Your task to perform on an android device: check android version Image 0: 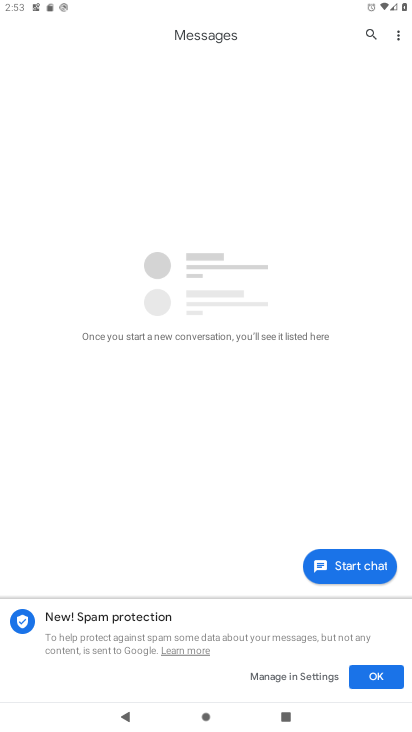
Step 0: press home button
Your task to perform on an android device: check android version Image 1: 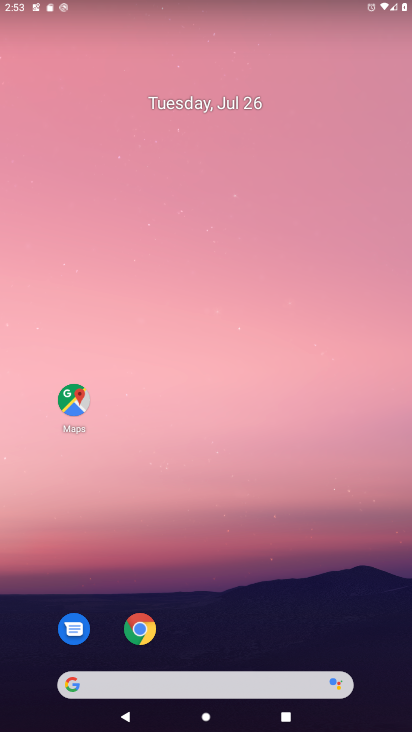
Step 1: drag from (203, 653) to (208, 252)
Your task to perform on an android device: check android version Image 2: 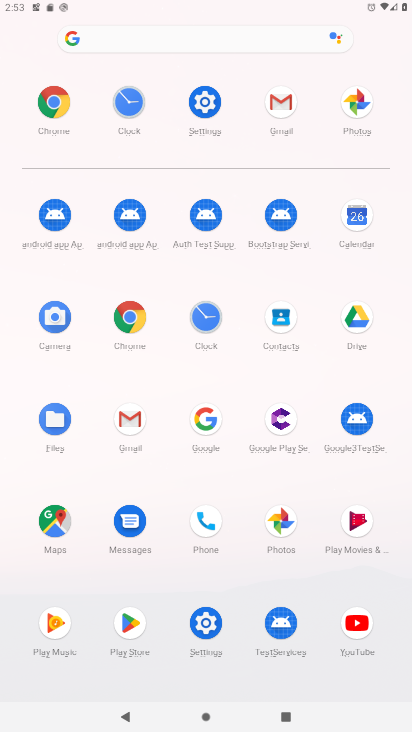
Step 2: click (233, 109)
Your task to perform on an android device: check android version Image 3: 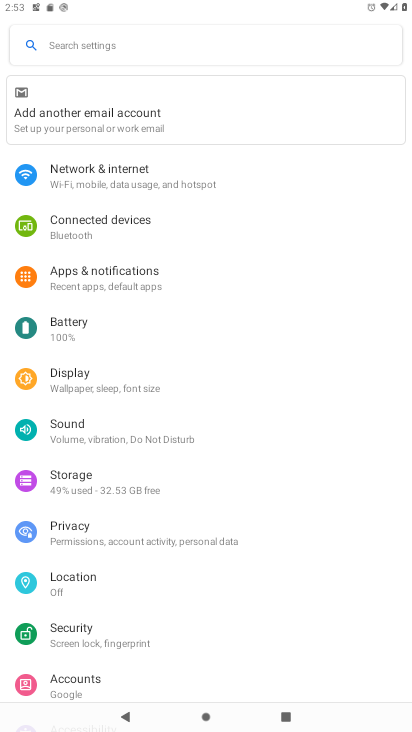
Step 3: drag from (217, 598) to (215, 68)
Your task to perform on an android device: check android version Image 4: 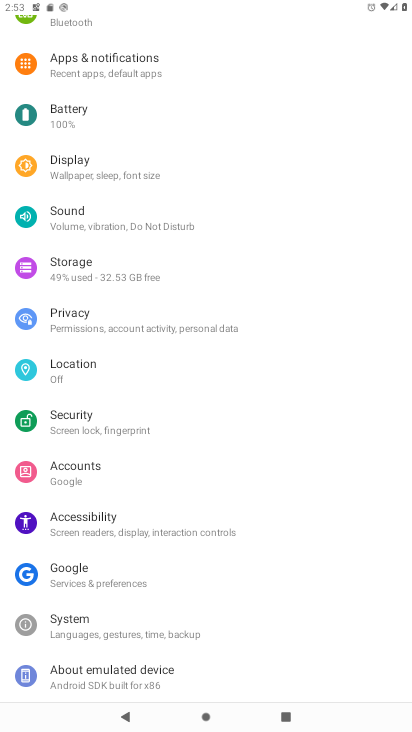
Step 4: click (174, 672)
Your task to perform on an android device: check android version Image 5: 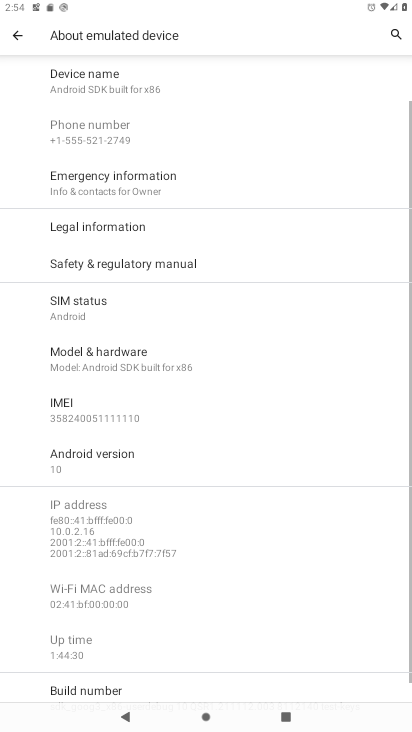
Step 5: click (116, 470)
Your task to perform on an android device: check android version Image 6: 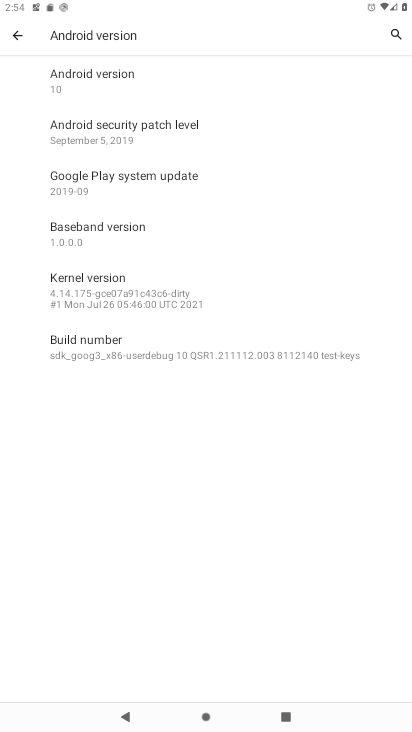
Step 6: task complete